Your task to perform on an android device: set an alarm Image 0: 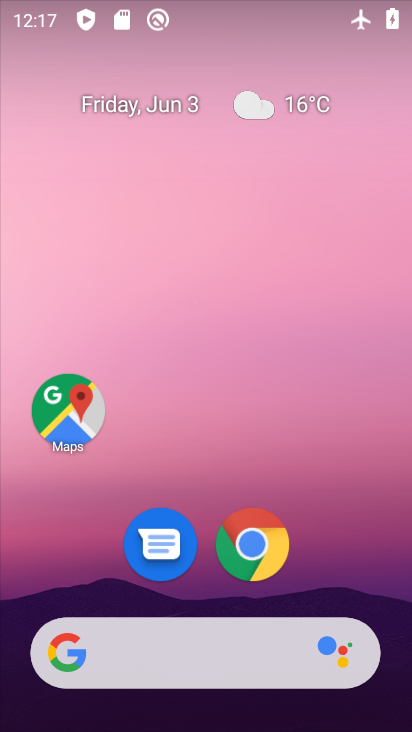
Step 0: drag from (358, 595) to (369, 209)
Your task to perform on an android device: set an alarm Image 1: 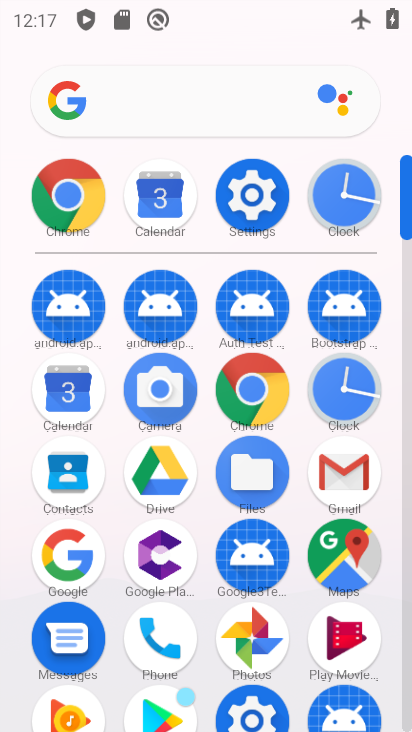
Step 1: click (359, 401)
Your task to perform on an android device: set an alarm Image 2: 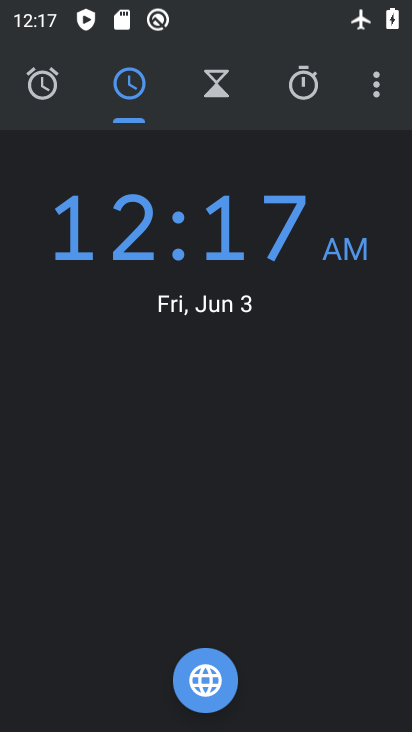
Step 2: click (54, 72)
Your task to perform on an android device: set an alarm Image 3: 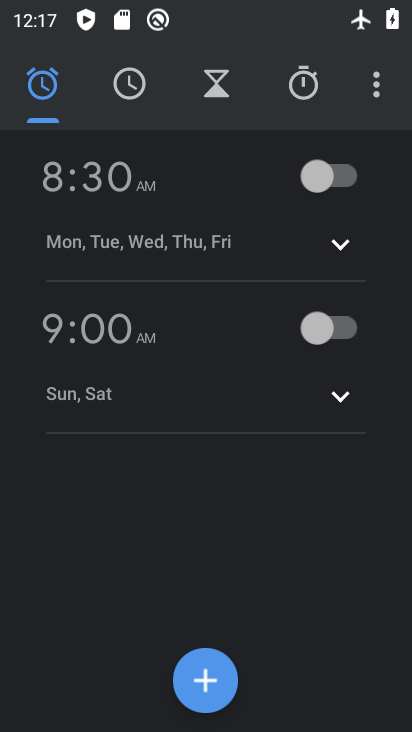
Step 3: click (208, 684)
Your task to perform on an android device: set an alarm Image 4: 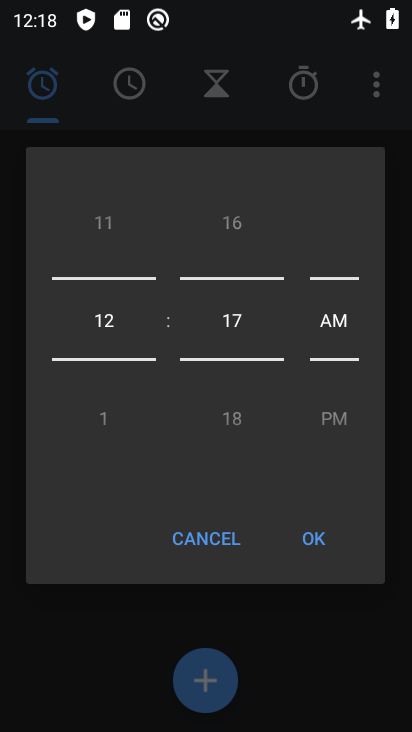
Step 4: click (334, 542)
Your task to perform on an android device: set an alarm Image 5: 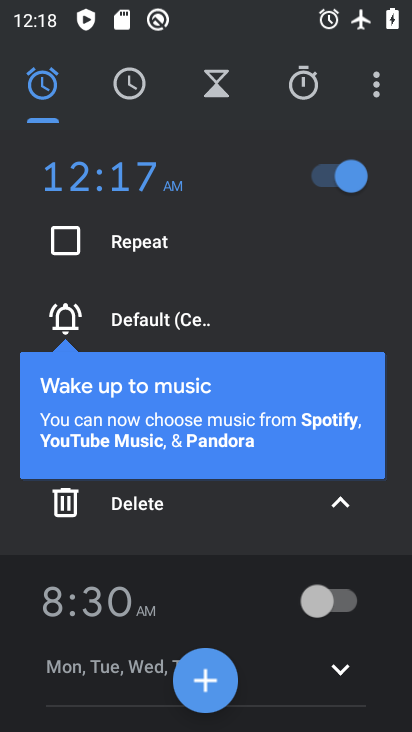
Step 5: task complete